Your task to perform on an android device: open a bookmark in the chrome app Image 0: 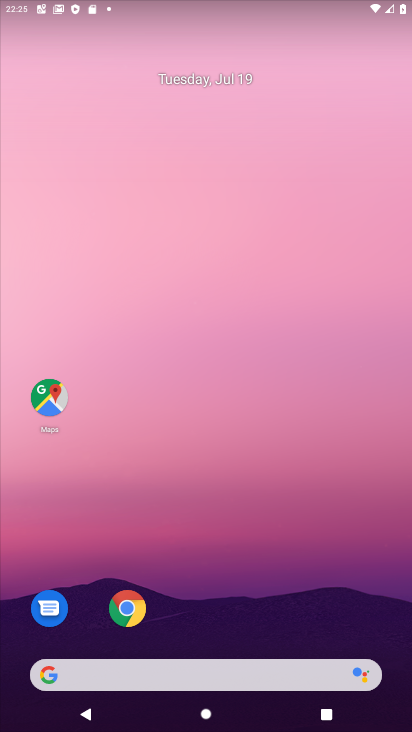
Step 0: click (54, 396)
Your task to perform on an android device: open a bookmark in the chrome app Image 1: 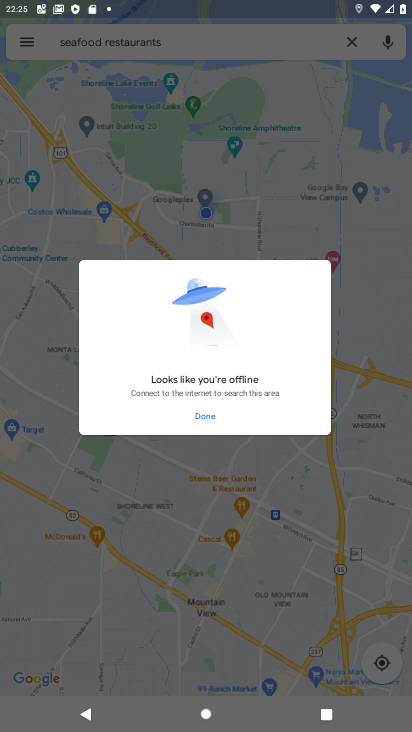
Step 1: press home button
Your task to perform on an android device: open a bookmark in the chrome app Image 2: 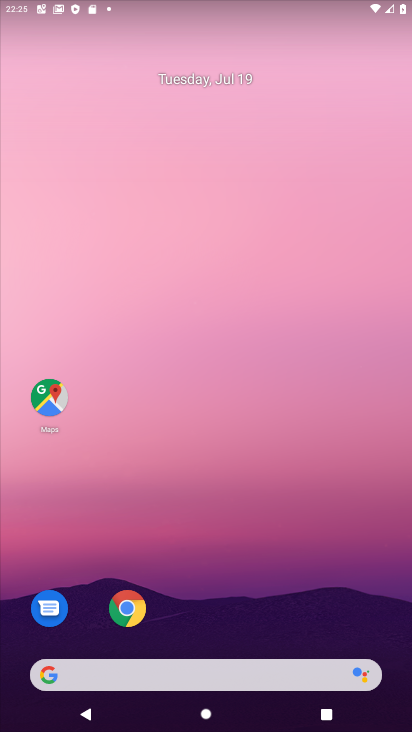
Step 2: drag from (319, 502) to (307, 148)
Your task to perform on an android device: open a bookmark in the chrome app Image 3: 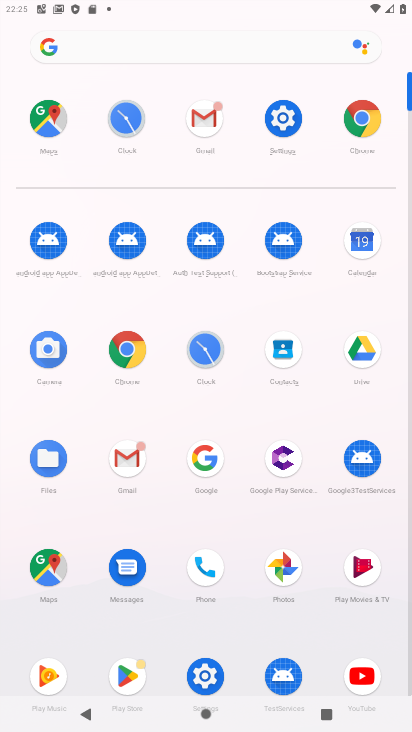
Step 3: click (123, 347)
Your task to perform on an android device: open a bookmark in the chrome app Image 4: 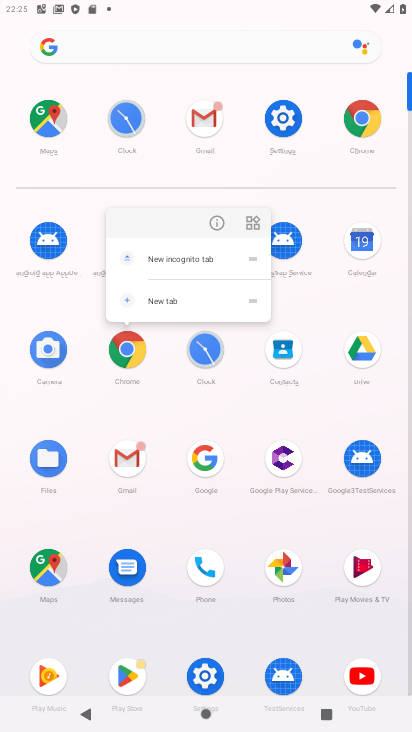
Step 4: click (128, 352)
Your task to perform on an android device: open a bookmark in the chrome app Image 5: 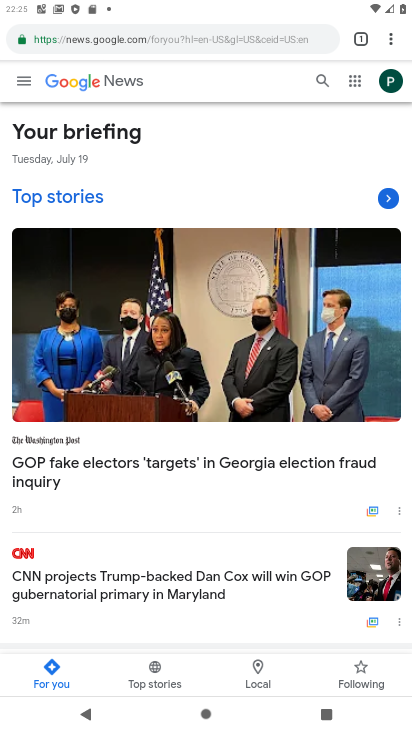
Step 5: click (392, 34)
Your task to perform on an android device: open a bookmark in the chrome app Image 6: 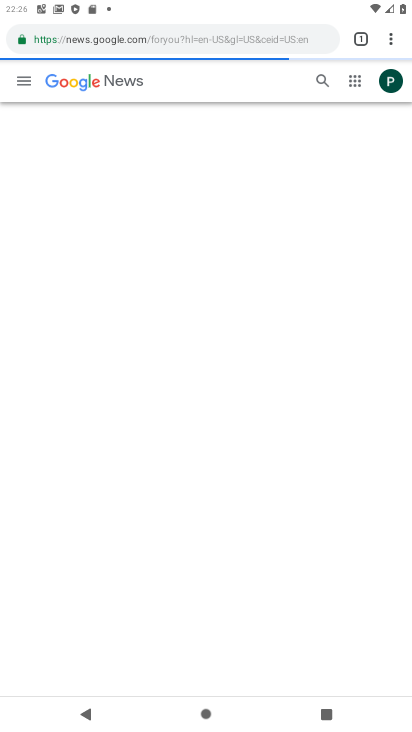
Step 6: drag from (392, 34) to (265, 151)
Your task to perform on an android device: open a bookmark in the chrome app Image 7: 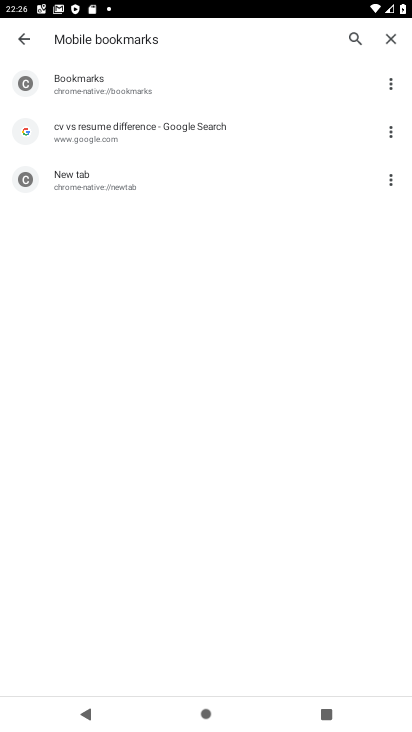
Step 7: click (173, 130)
Your task to perform on an android device: open a bookmark in the chrome app Image 8: 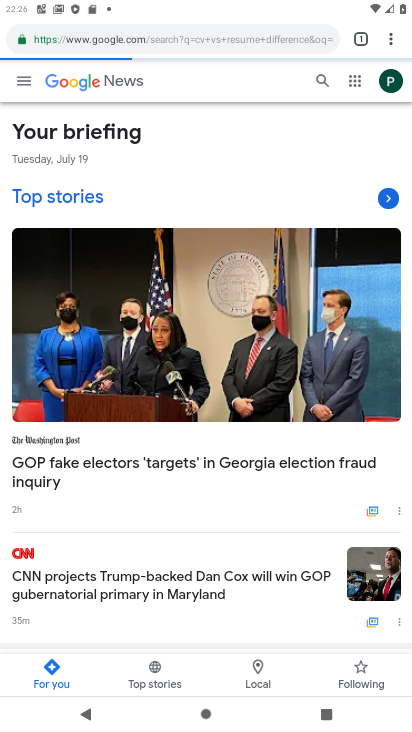
Step 8: click (166, 137)
Your task to perform on an android device: open a bookmark in the chrome app Image 9: 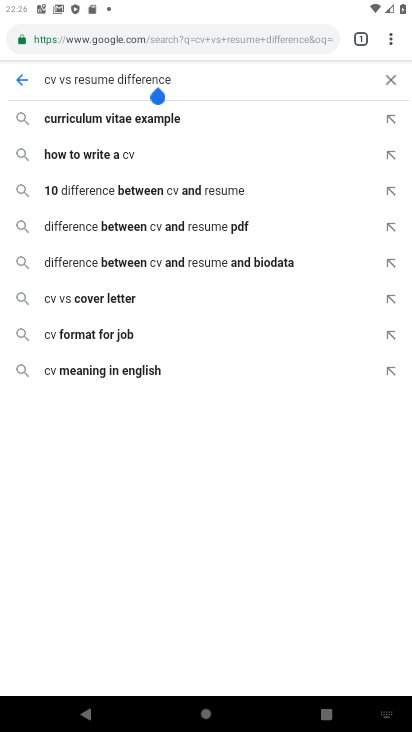
Step 9: task complete